Your task to perform on an android device: Check the weather Image 0: 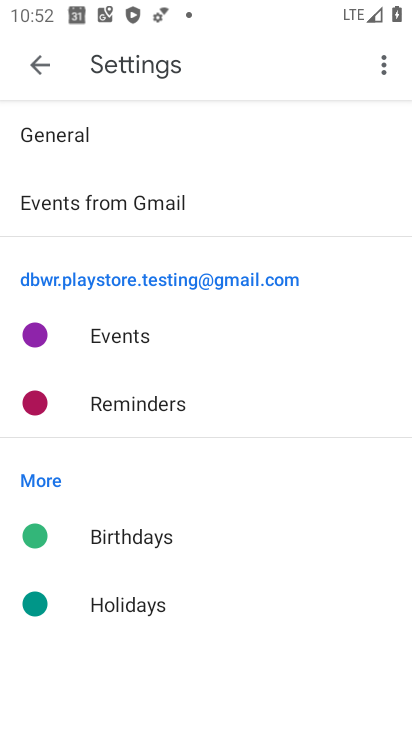
Step 0: press home button
Your task to perform on an android device: Check the weather Image 1: 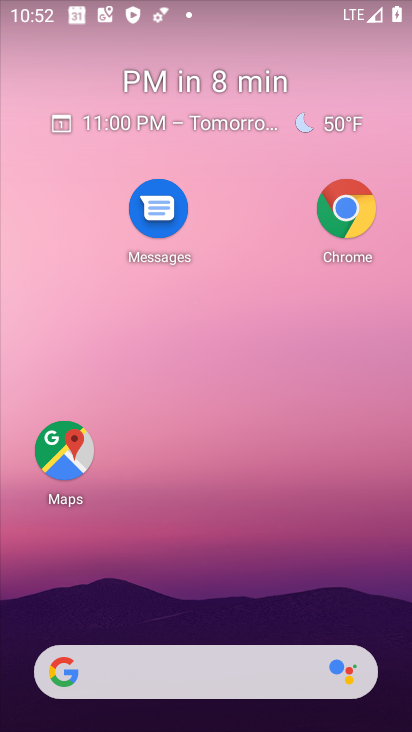
Step 1: click (214, 663)
Your task to perform on an android device: Check the weather Image 2: 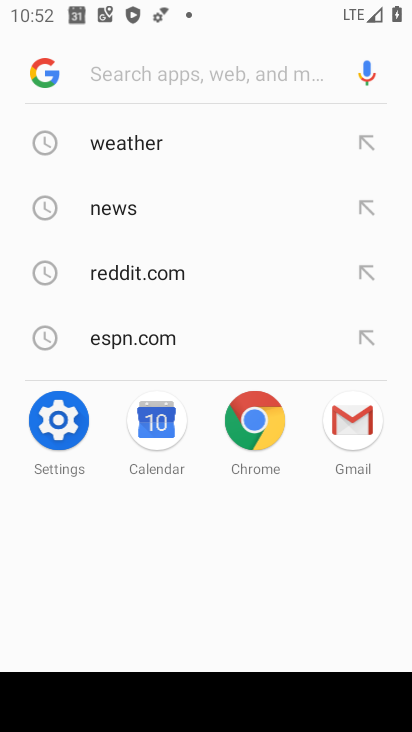
Step 2: click (120, 141)
Your task to perform on an android device: Check the weather Image 3: 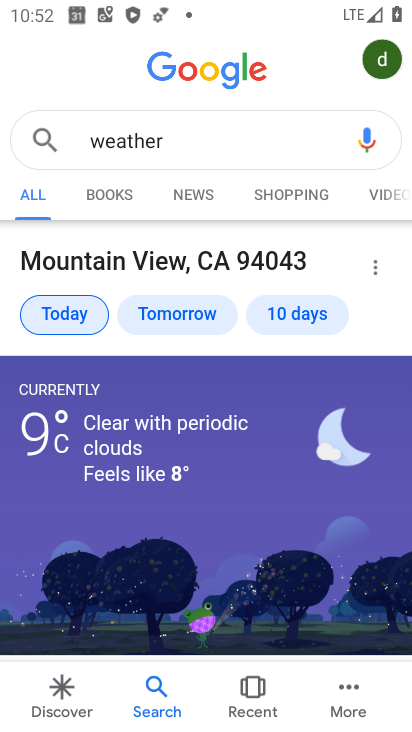
Step 3: task complete